Your task to perform on an android device: turn off picture-in-picture Image 0: 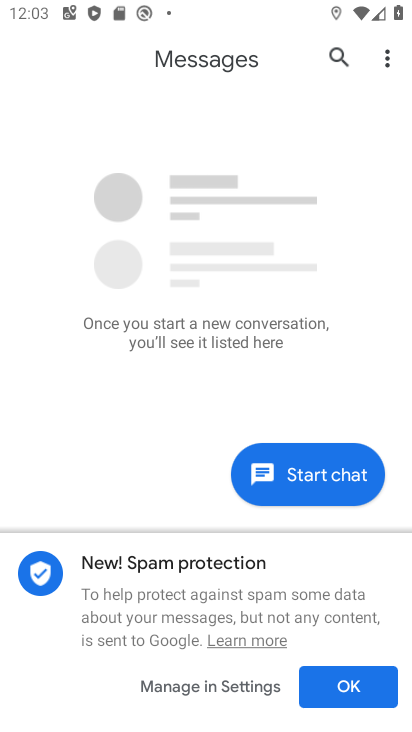
Step 0: press home button
Your task to perform on an android device: turn off picture-in-picture Image 1: 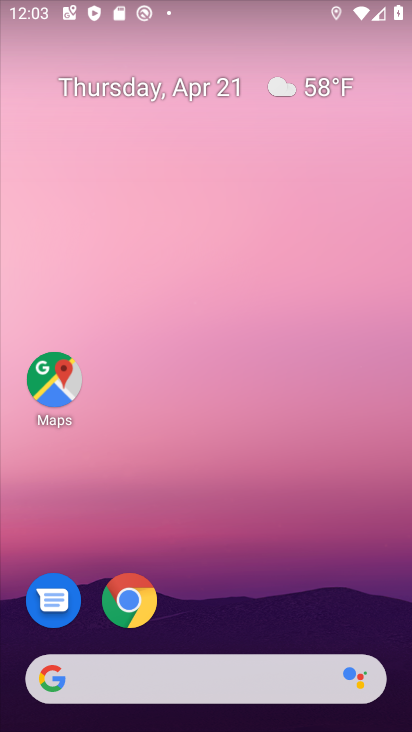
Step 1: drag from (217, 647) to (177, 12)
Your task to perform on an android device: turn off picture-in-picture Image 2: 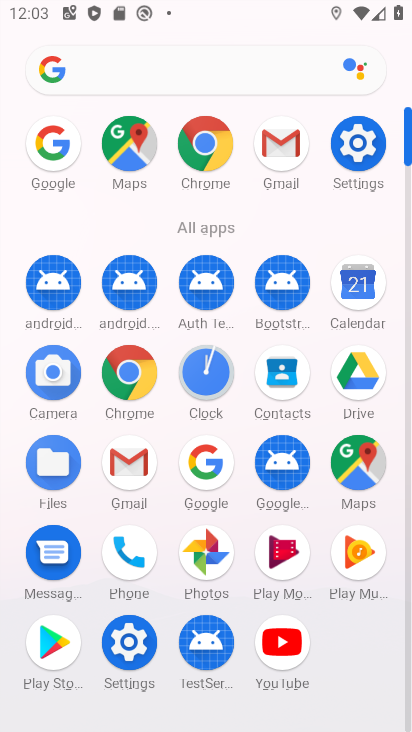
Step 2: click (358, 149)
Your task to perform on an android device: turn off picture-in-picture Image 3: 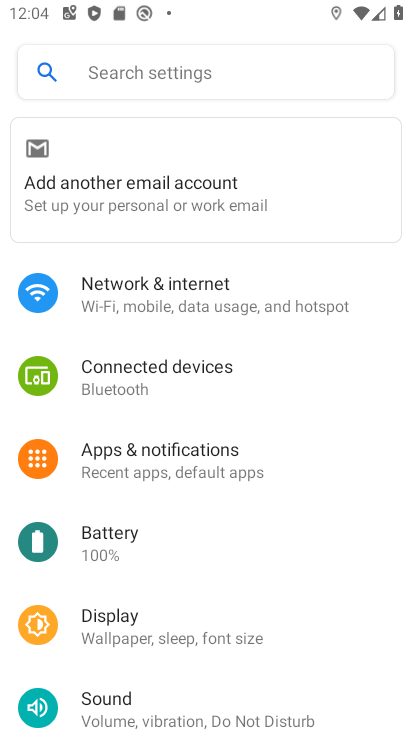
Step 3: click (201, 472)
Your task to perform on an android device: turn off picture-in-picture Image 4: 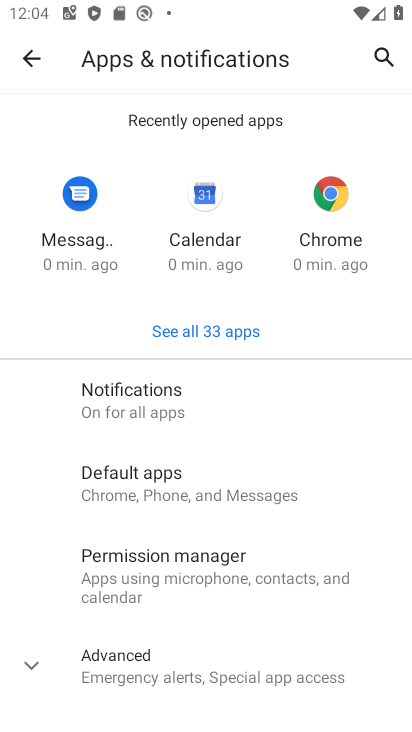
Step 4: click (150, 642)
Your task to perform on an android device: turn off picture-in-picture Image 5: 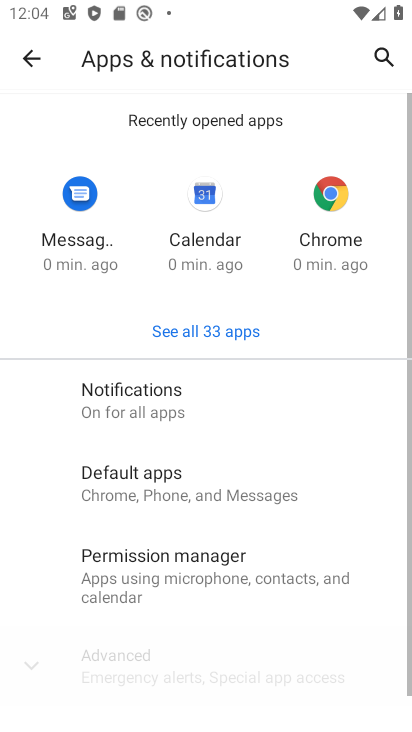
Step 5: drag from (150, 642) to (109, 237)
Your task to perform on an android device: turn off picture-in-picture Image 6: 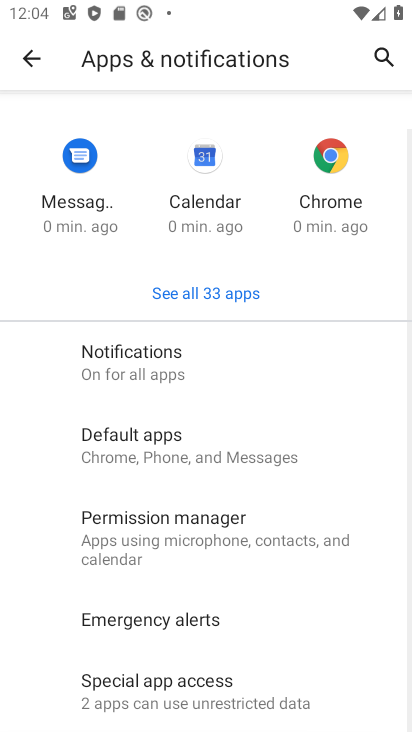
Step 6: click (143, 715)
Your task to perform on an android device: turn off picture-in-picture Image 7: 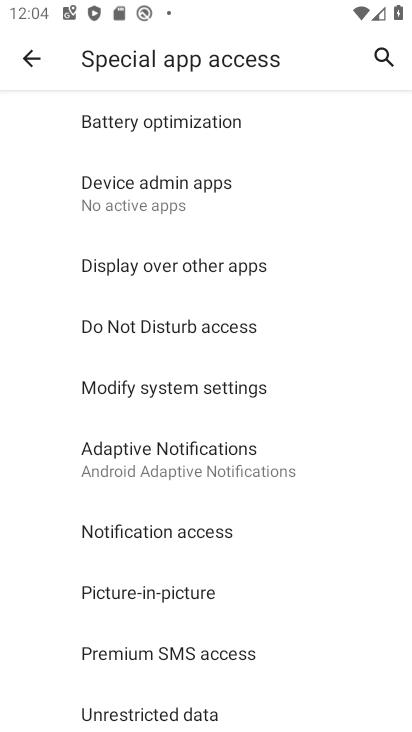
Step 7: click (145, 602)
Your task to perform on an android device: turn off picture-in-picture Image 8: 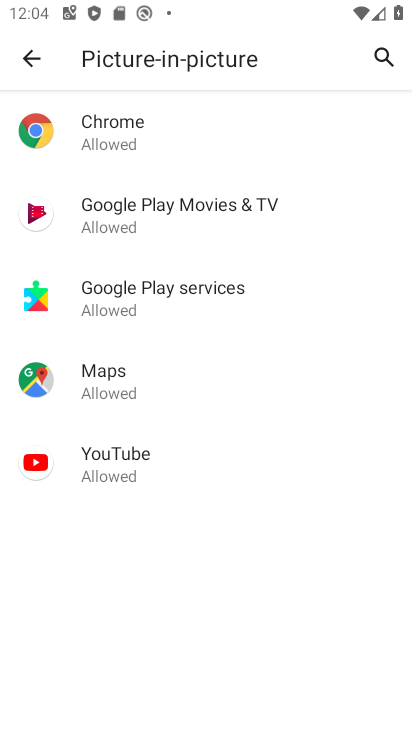
Step 8: task complete